Your task to perform on an android device: empty trash in the gmail app Image 0: 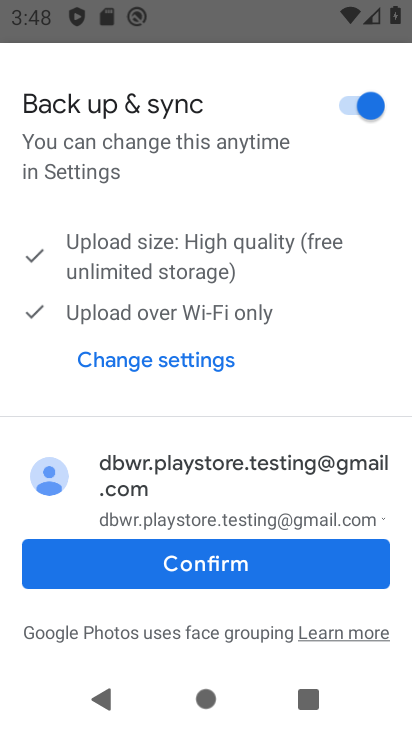
Step 0: press home button
Your task to perform on an android device: empty trash in the gmail app Image 1: 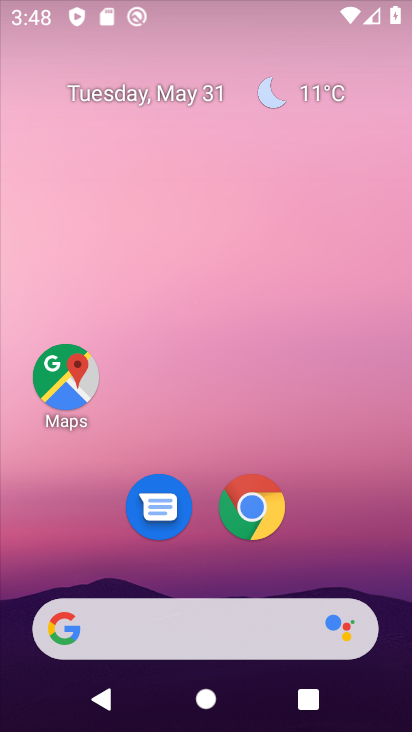
Step 1: drag from (194, 561) to (219, 86)
Your task to perform on an android device: empty trash in the gmail app Image 2: 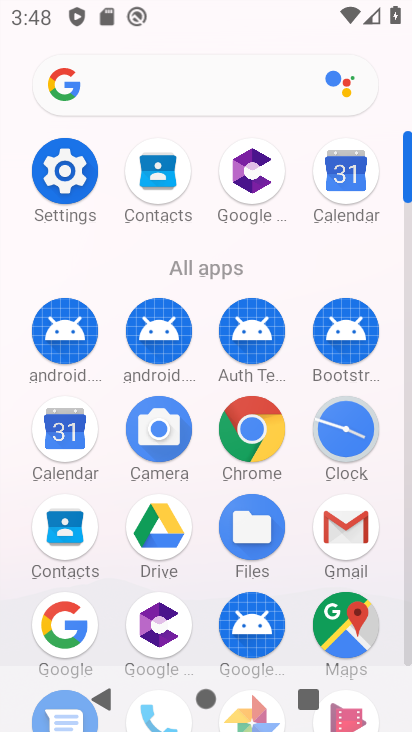
Step 2: click (337, 526)
Your task to perform on an android device: empty trash in the gmail app Image 3: 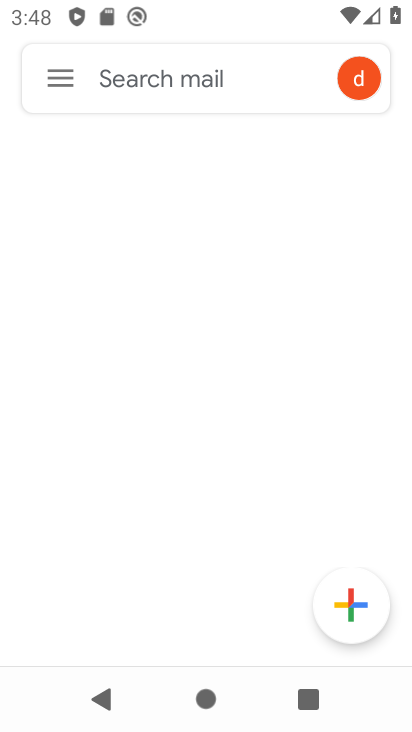
Step 3: click (59, 77)
Your task to perform on an android device: empty trash in the gmail app Image 4: 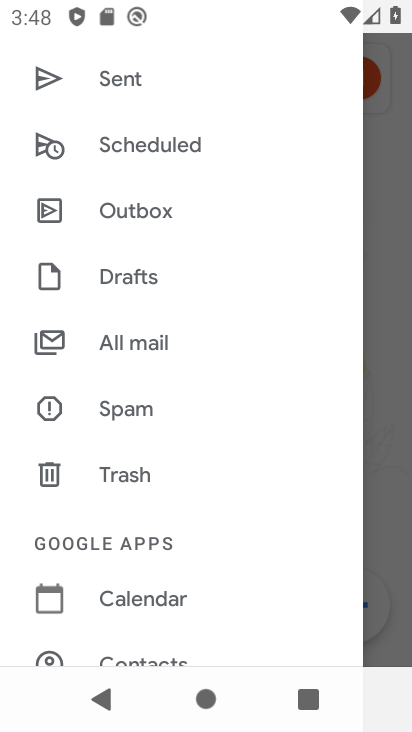
Step 4: click (142, 482)
Your task to perform on an android device: empty trash in the gmail app Image 5: 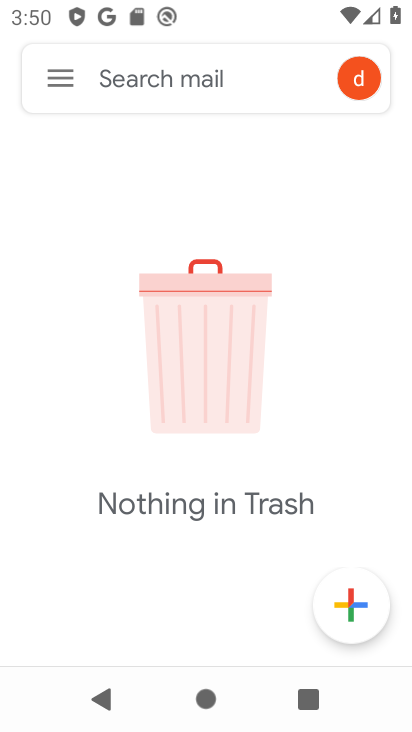
Step 5: task complete